Your task to perform on an android device: Go to accessibility settings Image 0: 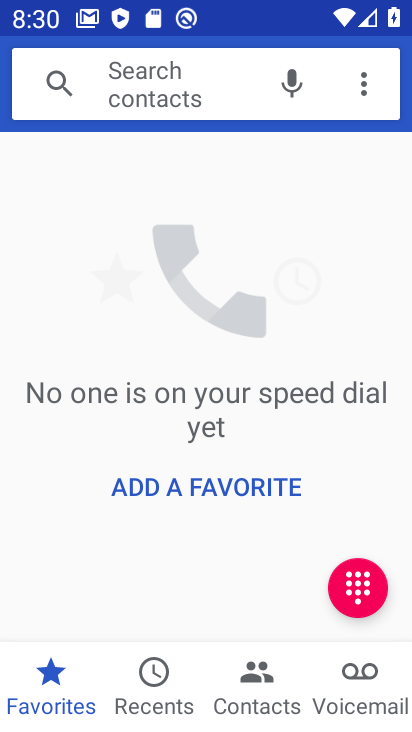
Step 0: press home button
Your task to perform on an android device: Go to accessibility settings Image 1: 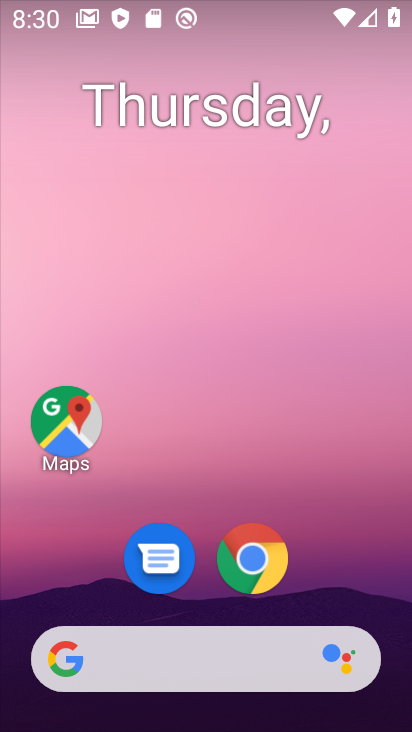
Step 1: drag from (378, 600) to (317, 70)
Your task to perform on an android device: Go to accessibility settings Image 2: 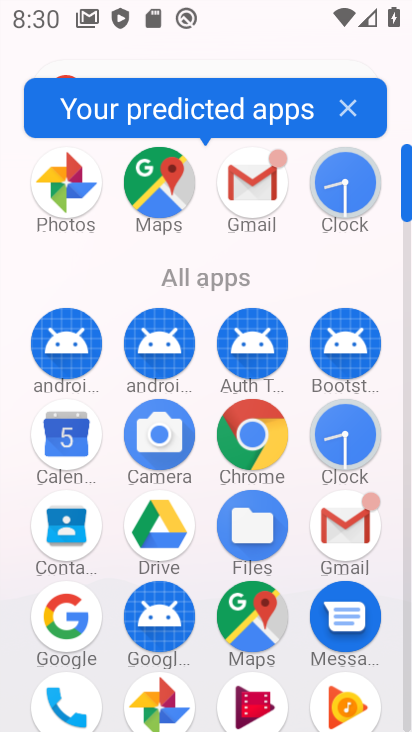
Step 2: click (406, 700)
Your task to perform on an android device: Go to accessibility settings Image 3: 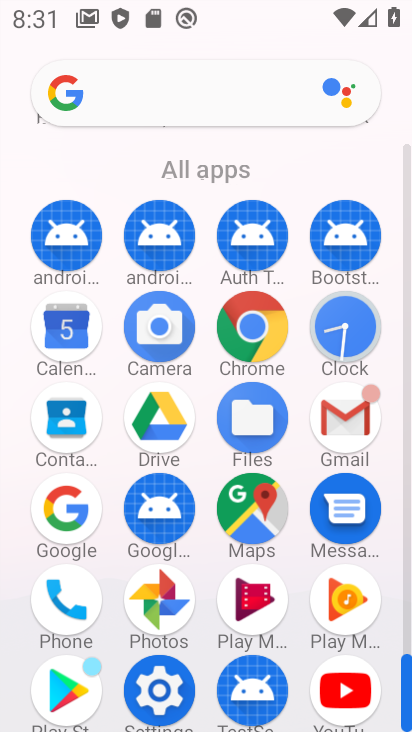
Step 3: click (162, 687)
Your task to perform on an android device: Go to accessibility settings Image 4: 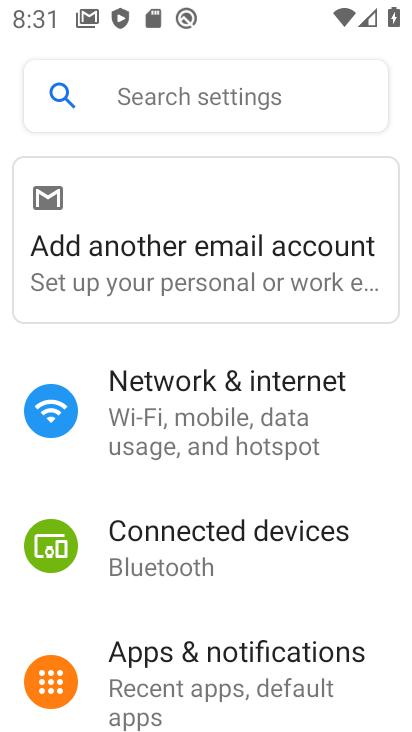
Step 4: drag from (352, 636) to (306, 252)
Your task to perform on an android device: Go to accessibility settings Image 5: 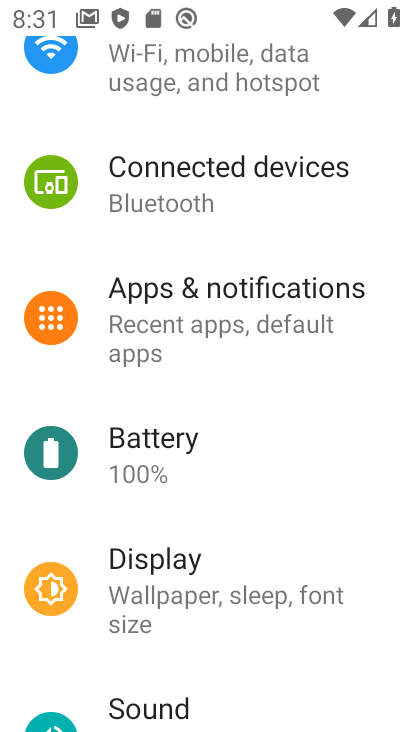
Step 5: drag from (339, 587) to (354, 154)
Your task to perform on an android device: Go to accessibility settings Image 6: 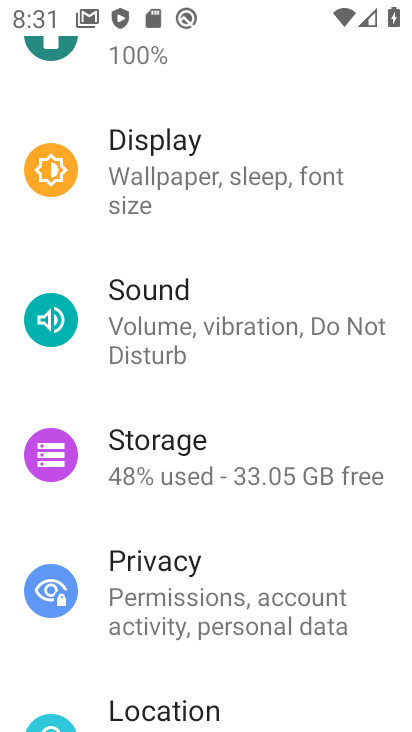
Step 6: drag from (309, 530) to (304, 103)
Your task to perform on an android device: Go to accessibility settings Image 7: 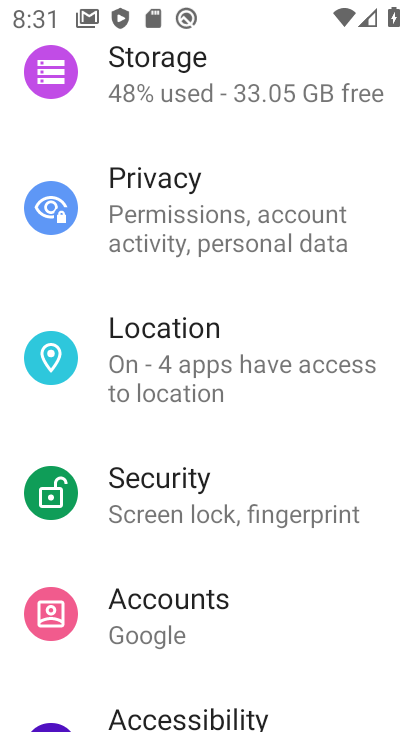
Step 7: drag from (327, 665) to (311, 121)
Your task to perform on an android device: Go to accessibility settings Image 8: 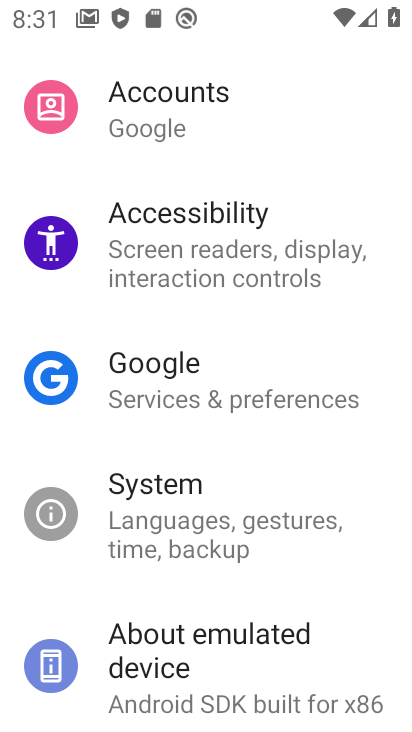
Step 8: click (136, 249)
Your task to perform on an android device: Go to accessibility settings Image 9: 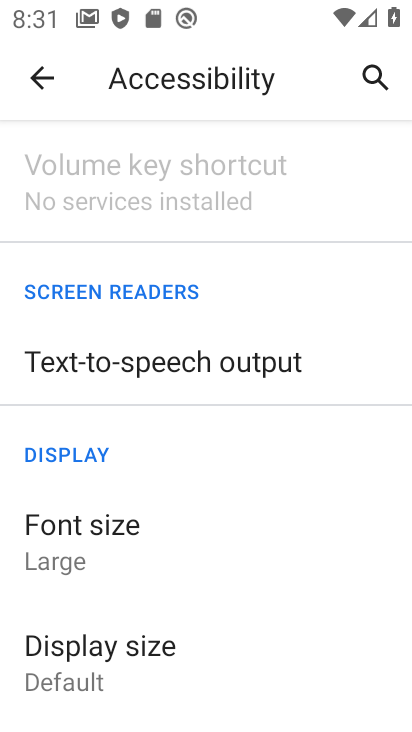
Step 9: task complete